Your task to perform on an android device: toggle show notifications on the lock screen Image 0: 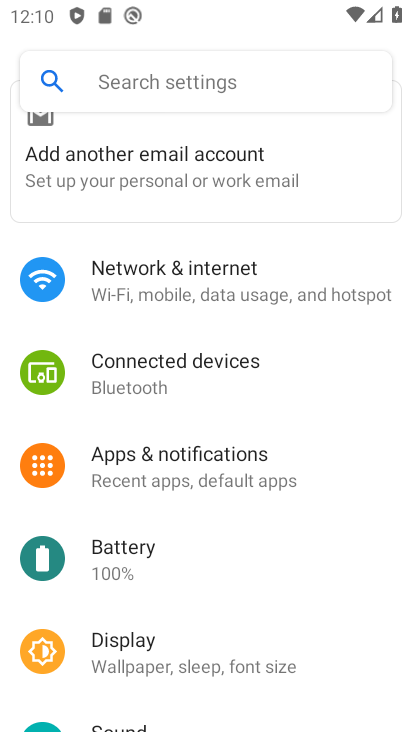
Step 0: click (274, 470)
Your task to perform on an android device: toggle show notifications on the lock screen Image 1: 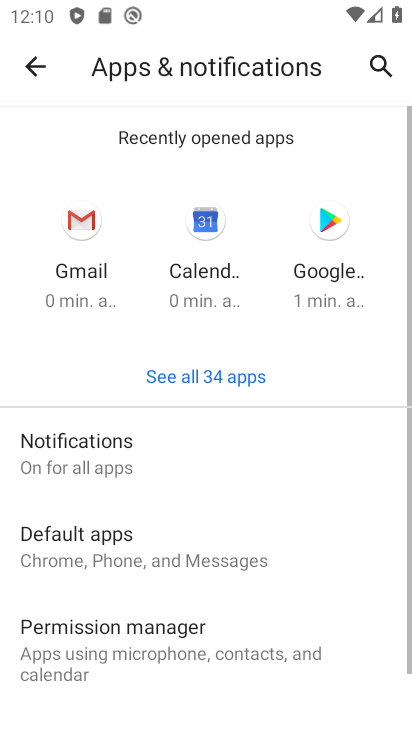
Step 1: click (212, 455)
Your task to perform on an android device: toggle show notifications on the lock screen Image 2: 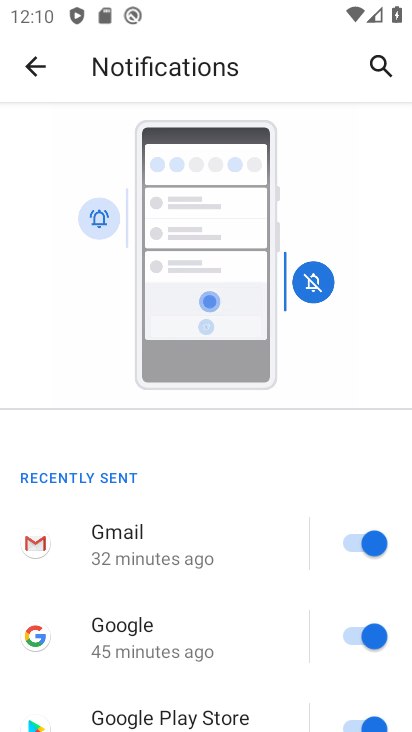
Step 2: drag from (200, 607) to (247, 101)
Your task to perform on an android device: toggle show notifications on the lock screen Image 3: 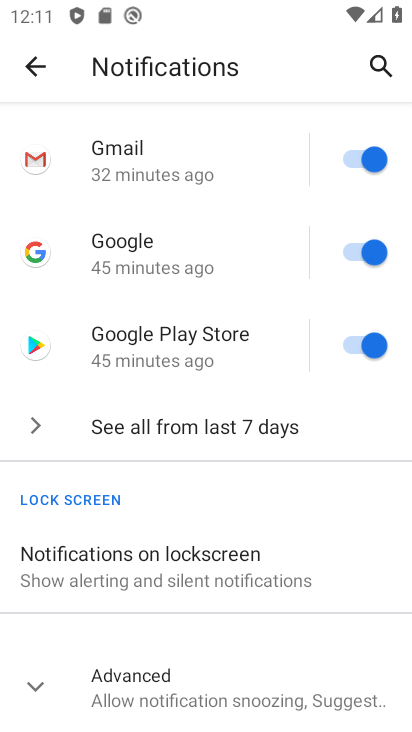
Step 3: click (188, 561)
Your task to perform on an android device: toggle show notifications on the lock screen Image 4: 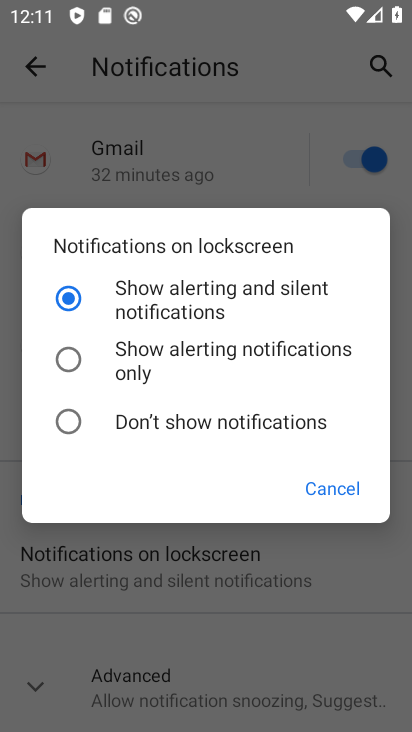
Step 4: click (325, 486)
Your task to perform on an android device: toggle show notifications on the lock screen Image 5: 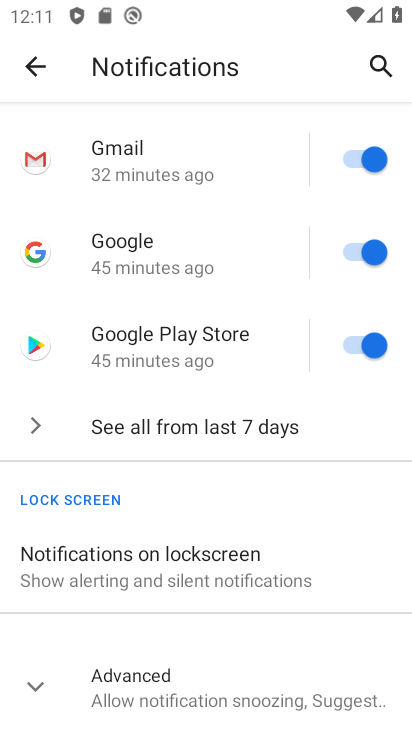
Step 5: click (33, 684)
Your task to perform on an android device: toggle show notifications on the lock screen Image 6: 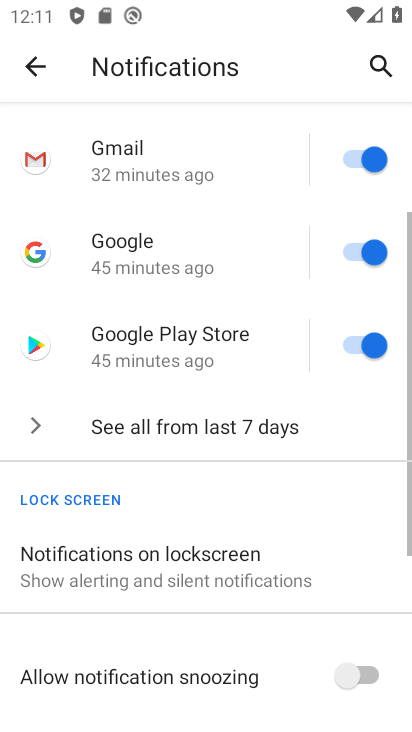
Step 6: drag from (190, 654) to (244, 222)
Your task to perform on an android device: toggle show notifications on the lock screen Image 7: 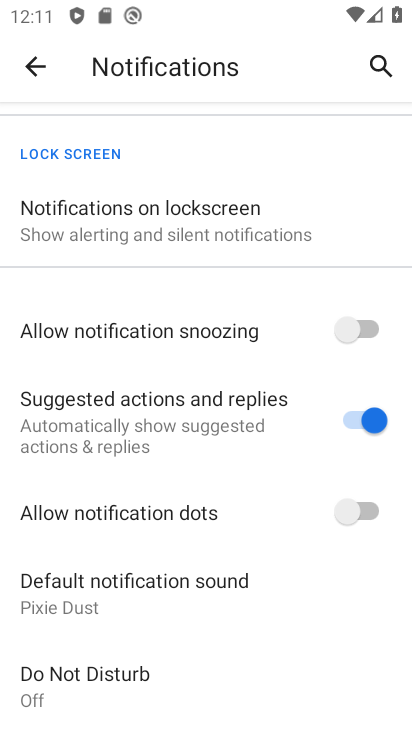
Step 7: click (354, 500)
Your task to perform on an android device: toggle show notifications on the lock screen Image 8: 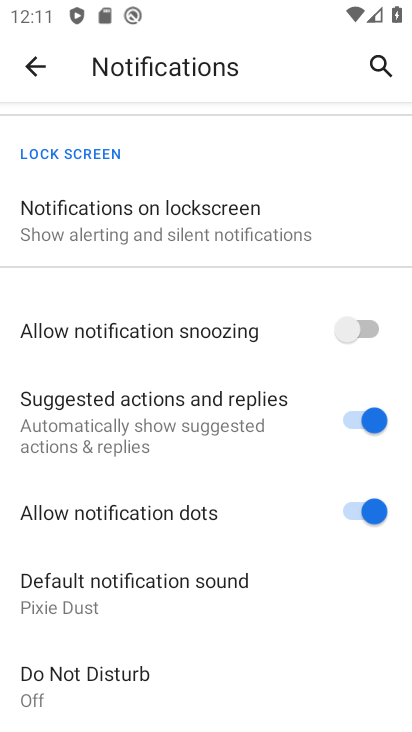
Step 8: task complete